Your task to perform on an android device: turn off translation in the chrome app Image 0: 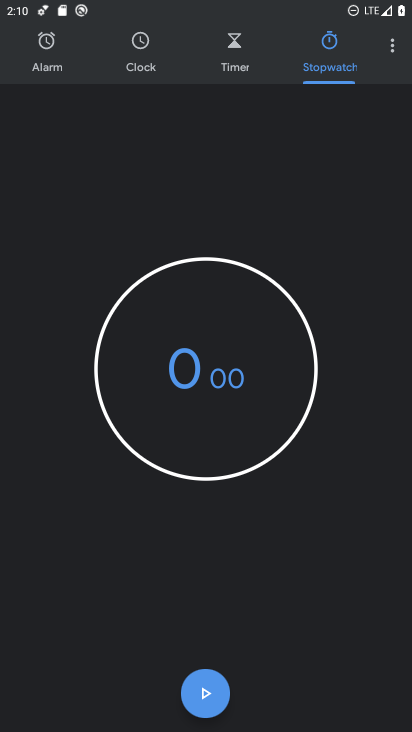
Step 0: press home button
Your task to perform on an android device: turn off translation in the chrome app Image 1: 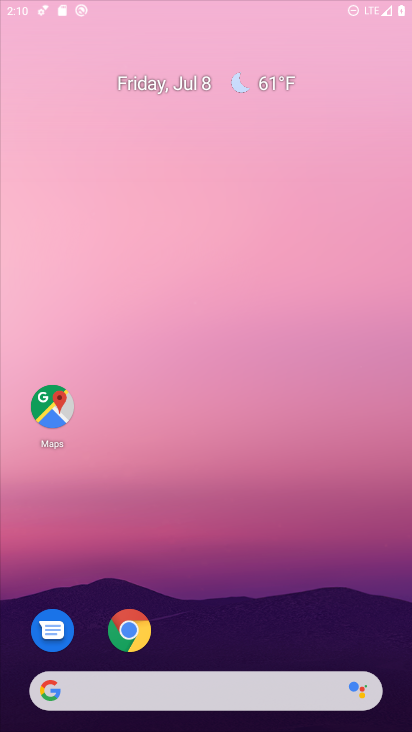
Step 1: drag from (362, 671) to (236, 56)
Your task to perform on an android device: turn off translation in the chrome app Image 2: 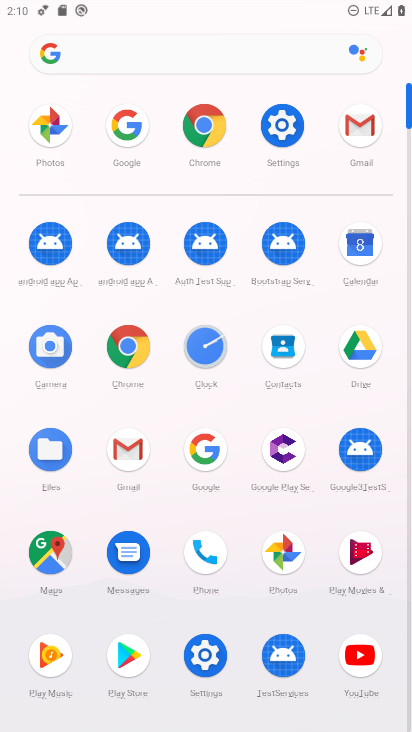
Step 2: click (192, 127)
Your task to perform on an android device: turn off translation in the chrome app Image 3: 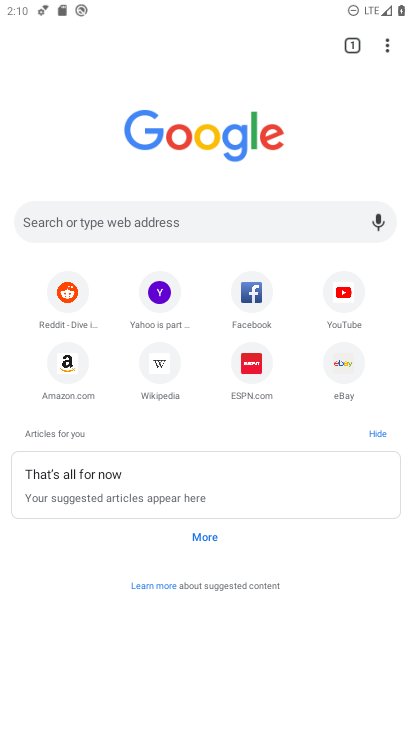
Step 3: click (387, 41)
Your task to perform on an android device: turn off translation in the chrome app Image 4: 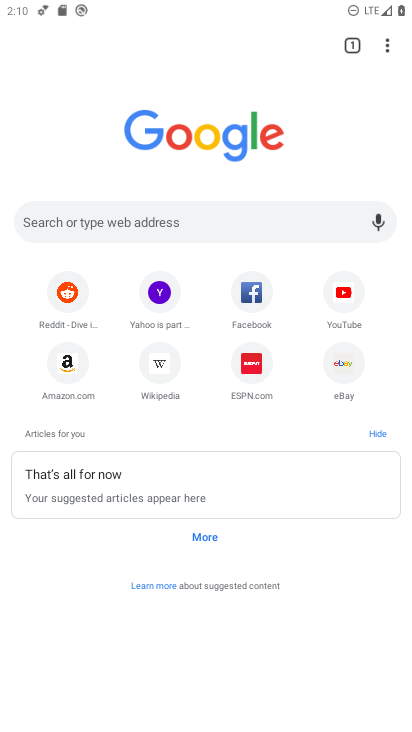
Step 4: click (390, 36)
Your task to perform on an android device: turn off translation in the chrome app Image 5: 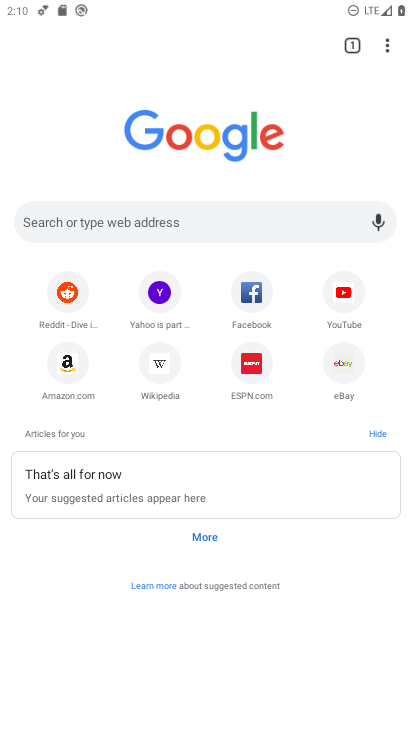
Step 5: click (384, 44)
Your task to perform on an android device: turn off translation in the chrome app Image 6: 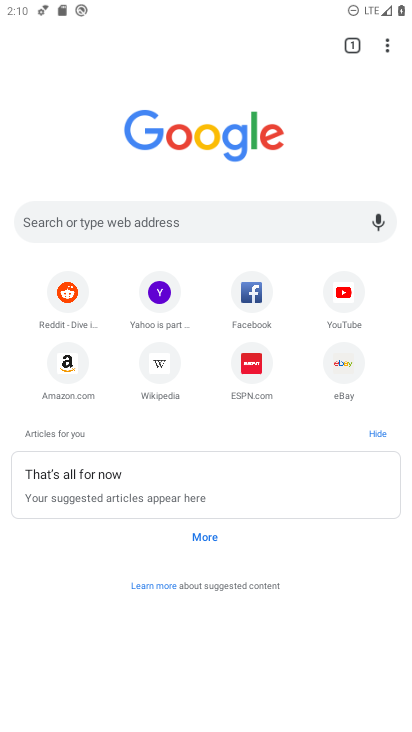
Step 6: click (390, 31)
Your task to perform on an android device: turn off translation in the chrome app Image 7: 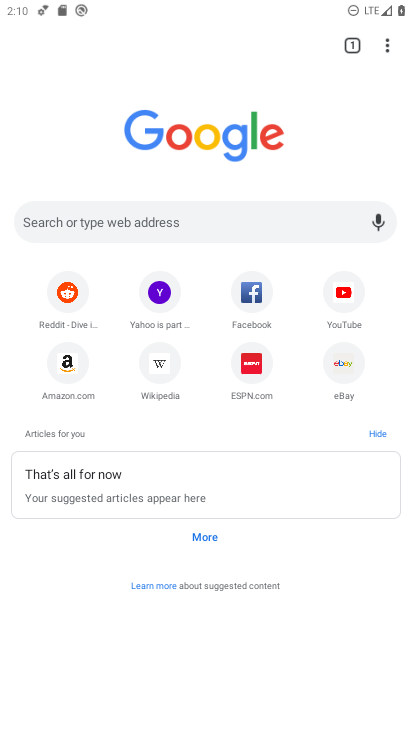
Step 7: click (390, 45)
Your task to perform on an android device: turn off translation in the chrome app Image 8: 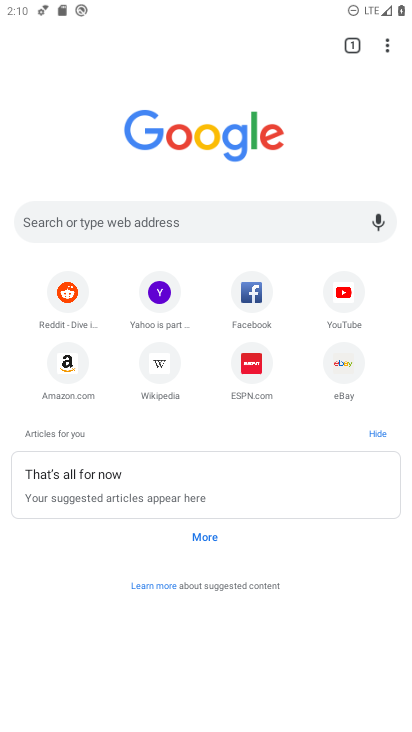
Step 8: click (388, 44)
Your task to perform on an android device: turn off translation in the chrome app Image 9: 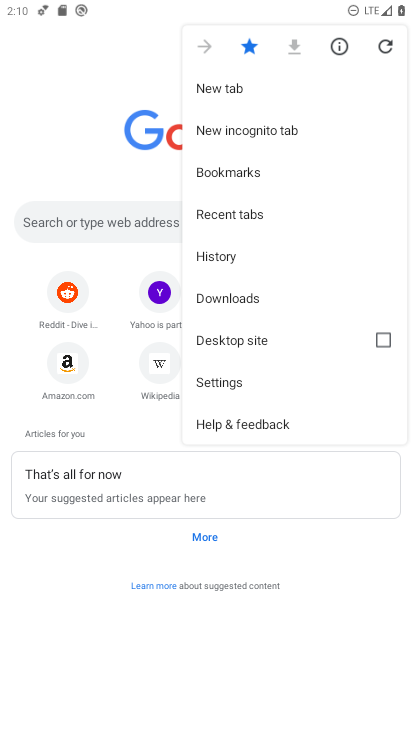
Step 9: click (249, 383)
Your task to perform on an android device: turn off translation in the chrome app Image 10: 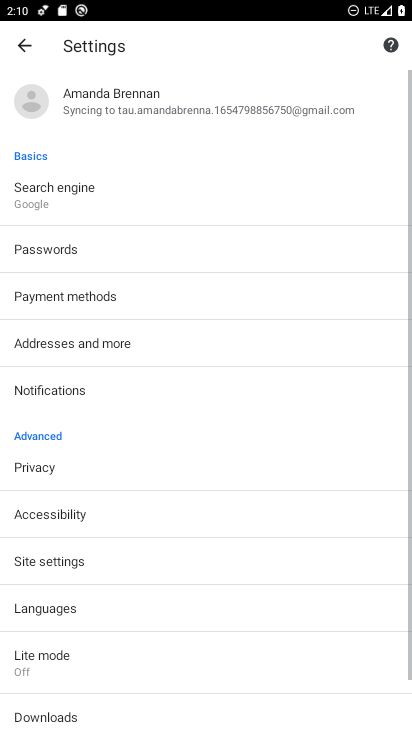
Step 10: click (44, 601)
Your task to perform on an android device: turn off translation in the chrome app Image 11: 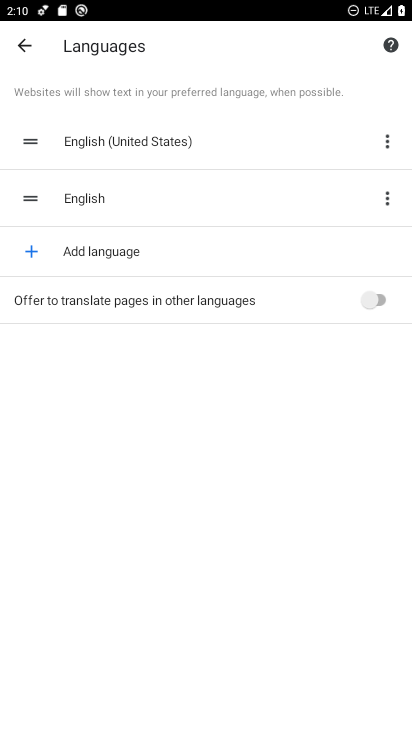
Step 11: task complete